Your task to perform on an android device: Check the news Image 0: 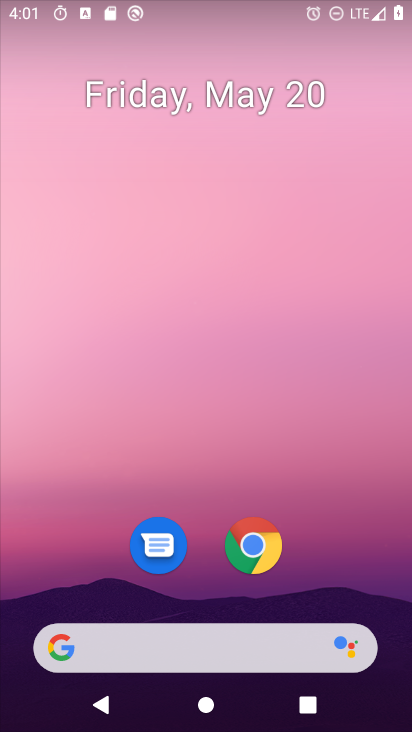
Step 0: drag from (185, 476) to (215, 57)
Your task to perform on an android device: Check the news Image 1: 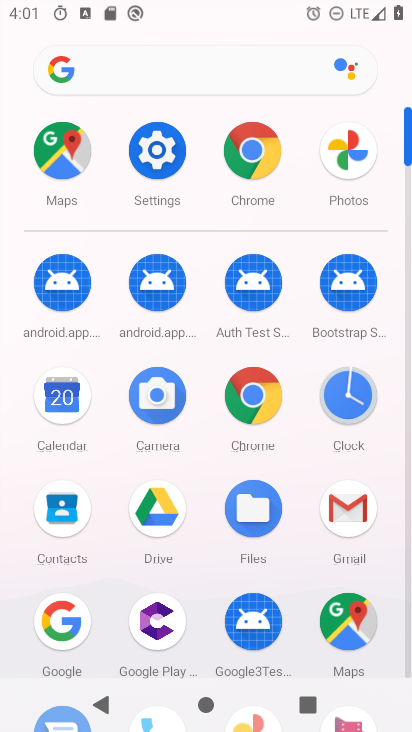
Step 1: click (252, 395)
Your task to perform on an android device: Check the news Image 2: 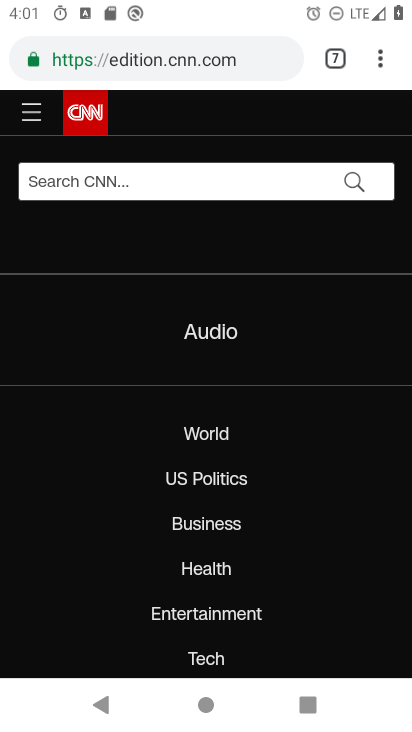
Step 2: click (376, 55)
Your task to perform on an android device: Check the news Image 3: 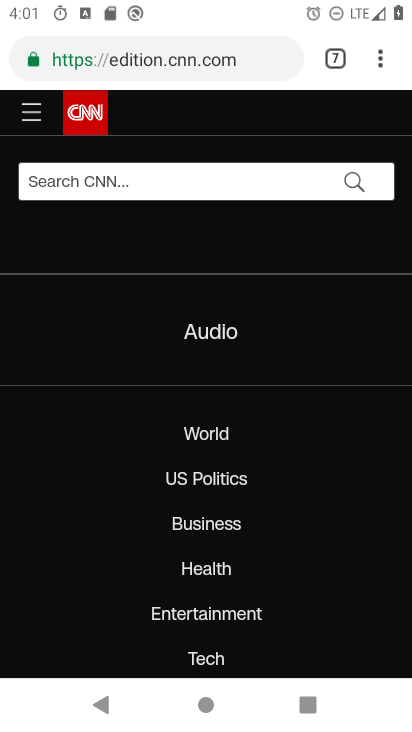
Step 3: click (379, 59)
Your task to perform on an android device: Check the news Image 4: 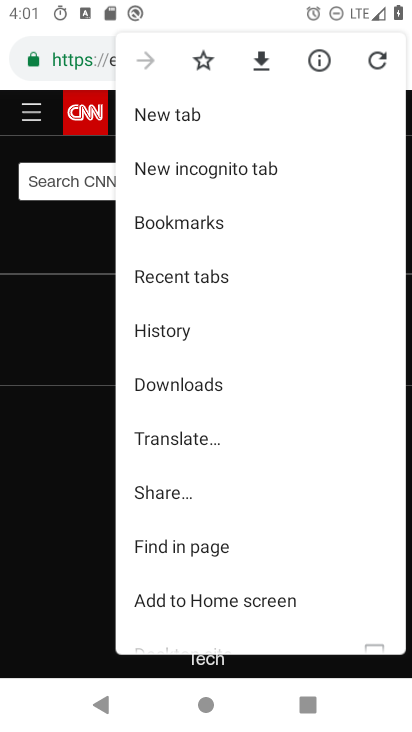
Step 4: drag from (281, 533) to (281, 205)
Your task to perform on an android device: Check the news Image 5: 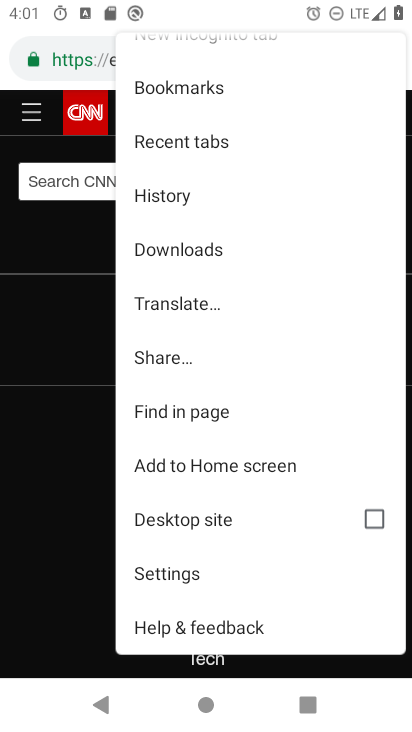
Step 5: click (70, 58)
Your task to perform on an android device: Check the news Image 6: 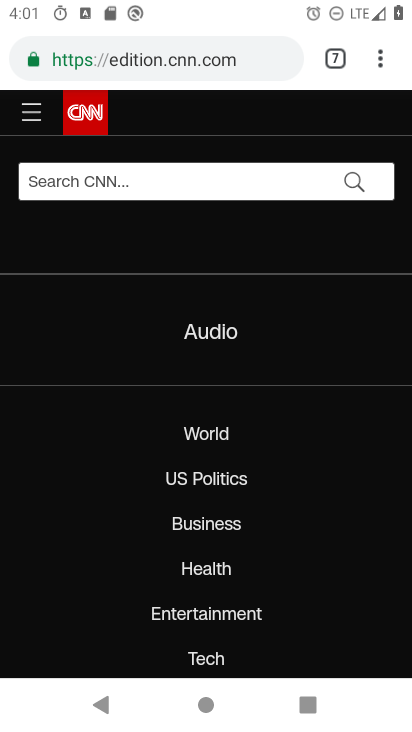
Step 6: click (98, 54)
Your task to perform on an android device: Check the news Image 7: 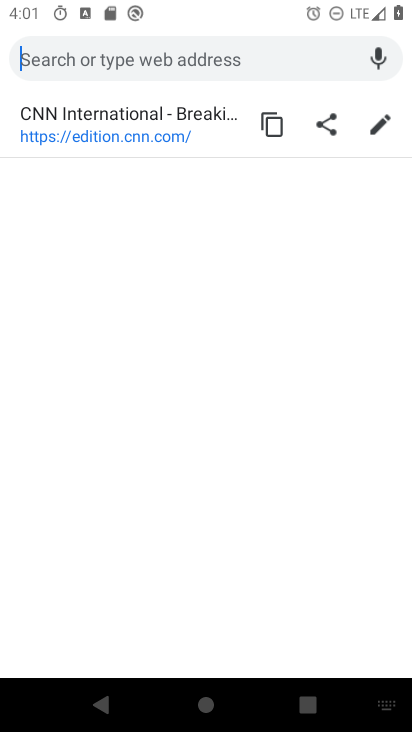
Step 7: type "check the news"
Your task to perform on an android device: Check the news Image 8: 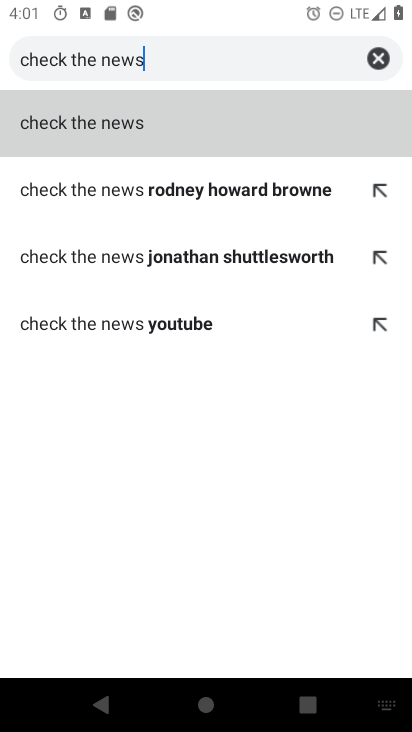
Step 8: click (141, 115)
Your task to perform on an android device: Check the news Image 9: 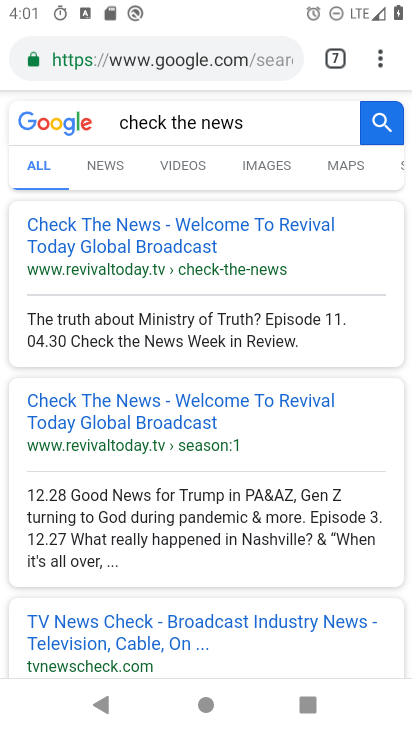
Step 9: task complete